Your task to perform on an android device: turn on airplane mode Image 0: 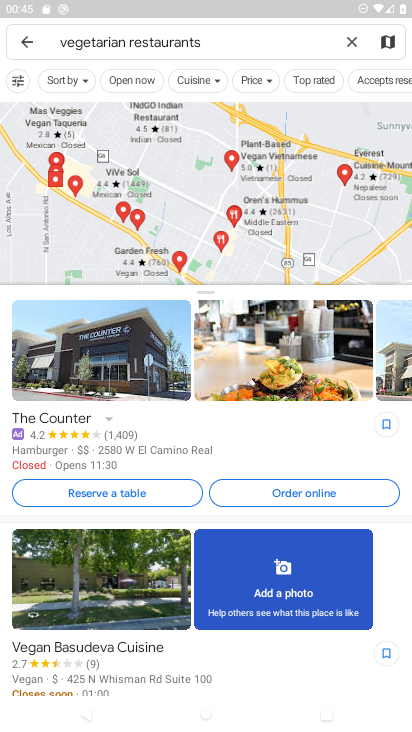
Step 0: press home button
Your task to perform on an android device: turn on airplane mode Image 1: 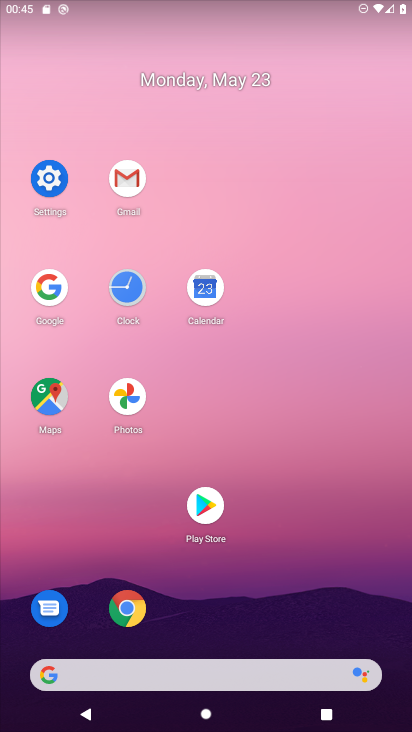
Step 1: click (44, 195)
Your task to perform on an android device: turn on airplane mode Image 2: 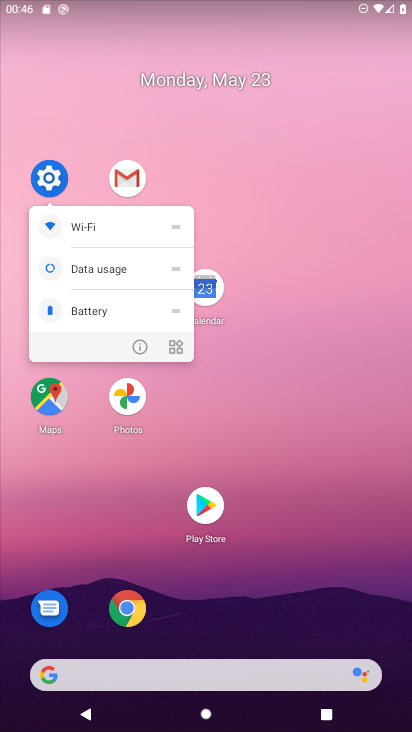
Step 2: click (57, 178)
Your task to perform on an android device: turn on airplane mode Image 3: 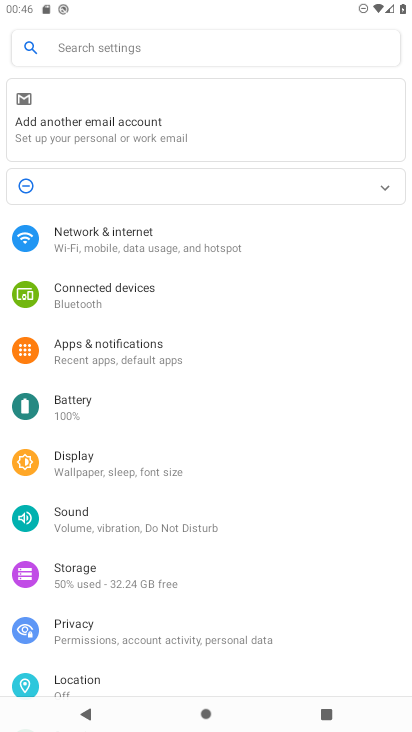
Step 3: click (119, 260)
Your task to perform on an android device: turn on airplane mode Image 4: 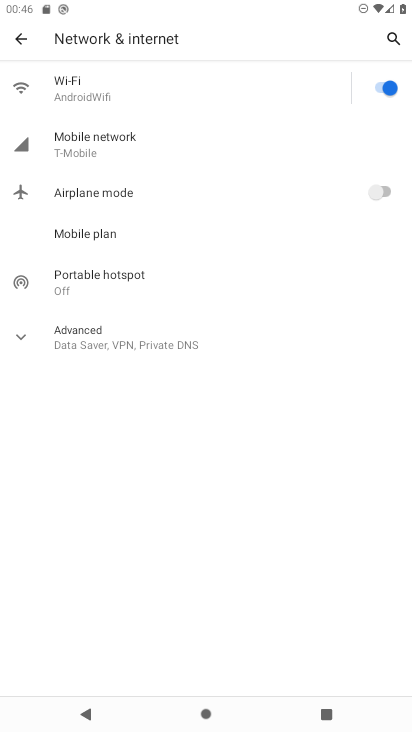
Step 4: click (373, 202)
Your task to perform on an android device: turn on airplane mode Image 5: 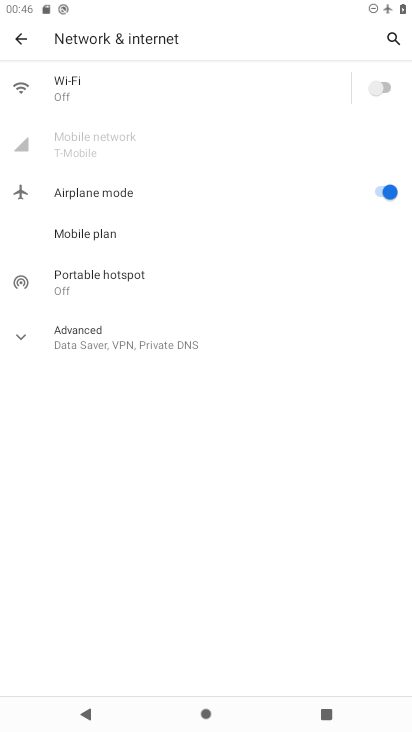
Step 5: task complete